Your task to perform on an android device: turn on translation in the chrome app Image 0: 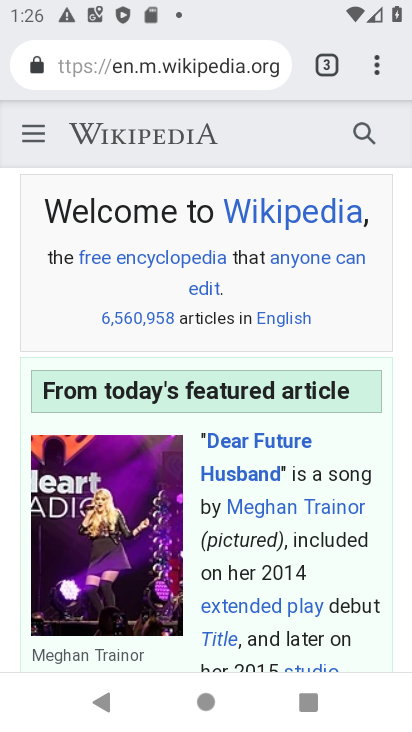
Step 0: press home button
Your task to perform on an android device: turn on translation in the chrome app Image 1: 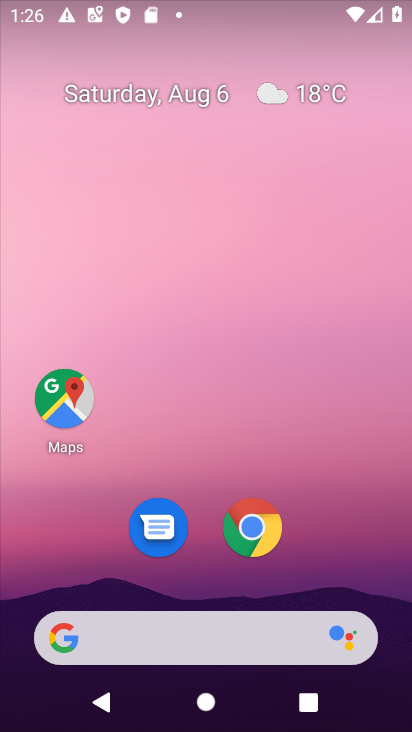
Step 1: drag from (215, 587) to (216, 98)
Your task to perform on an android device: turn on translation in the chrome app Image 2: 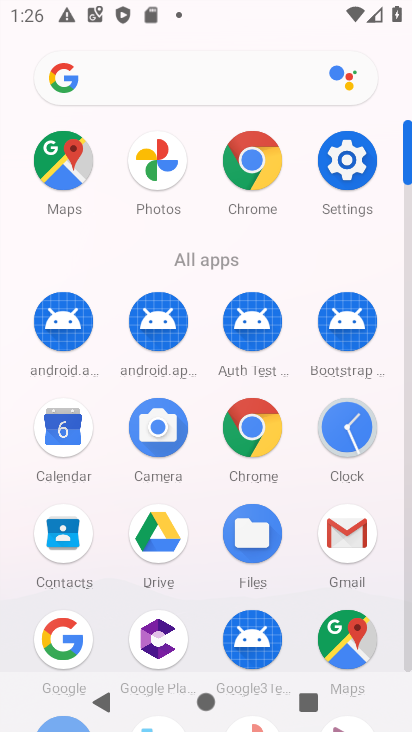
Step 2: click (234, 430)
Your task to perform on an android device: turn on translation in the chrome app Image 3: 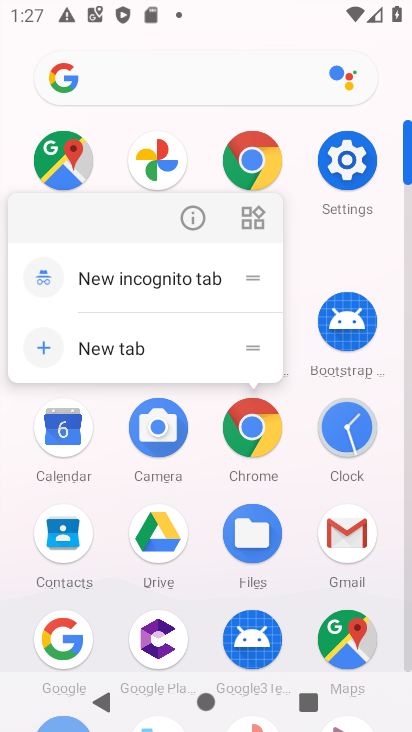
Step 3: click (254, 448)
Your task to perform on an android device: turn on translation in the chrome app Image 4: 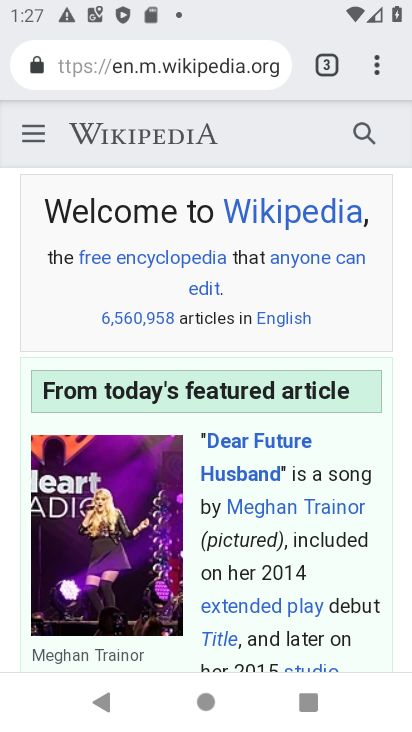
Step 4: click (270, 434)
Your task to perform on an android device: turn on translation in the chrome app Image 5: 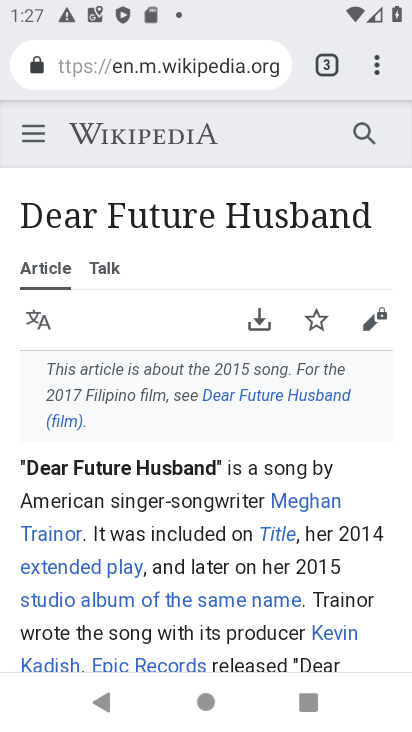
Step 5: click (372, 68)
Your task to perform on an android device: turn on translation in the chrome app Image 6: 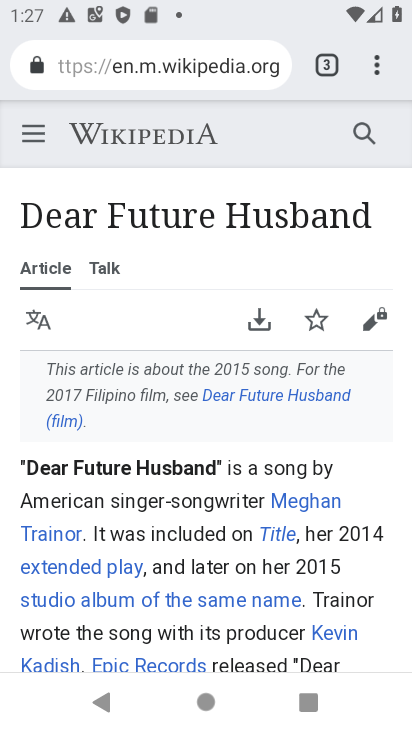
Step 6: click (381, 69)
Your task to perform on an android device: turn on translation in the chrome app Image 7: 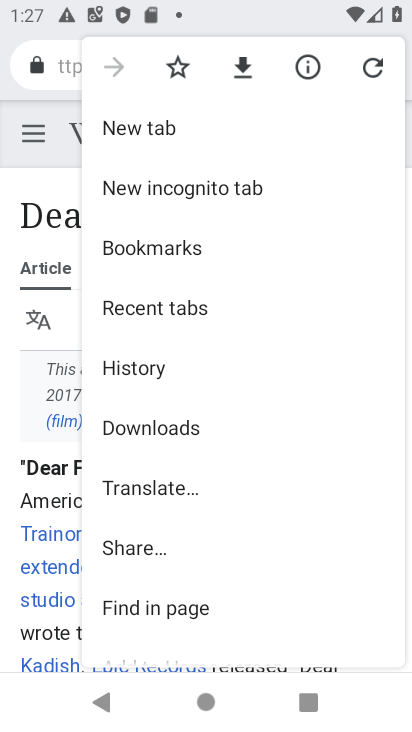
Step 7: drag from (196, 524) to (202, 223)
Your task to perform on an android device: turn on translation in the chrome app Image 8: 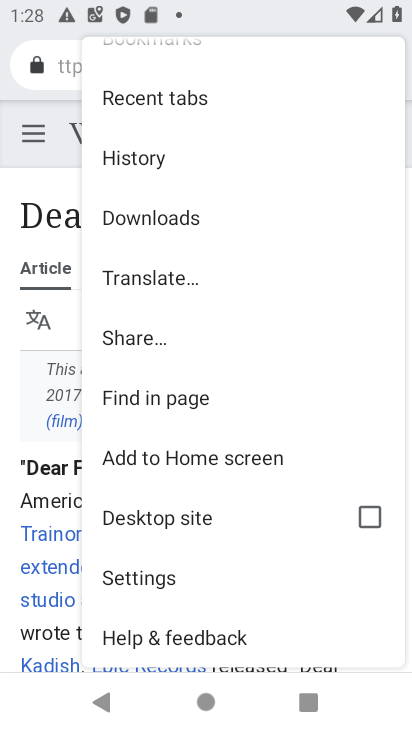
Step 8: click (166, 581)
Your task to perform on an android device: turn on translation in the chrome app Image 9: 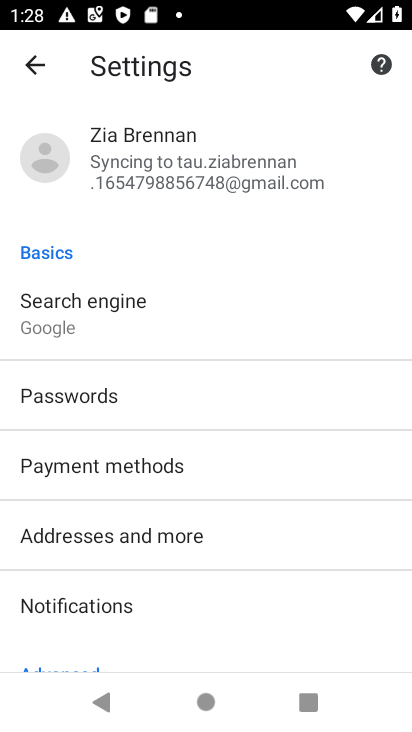
Step 9: task complete